Your task to perform on an android device: Go to sound settings Image 0: 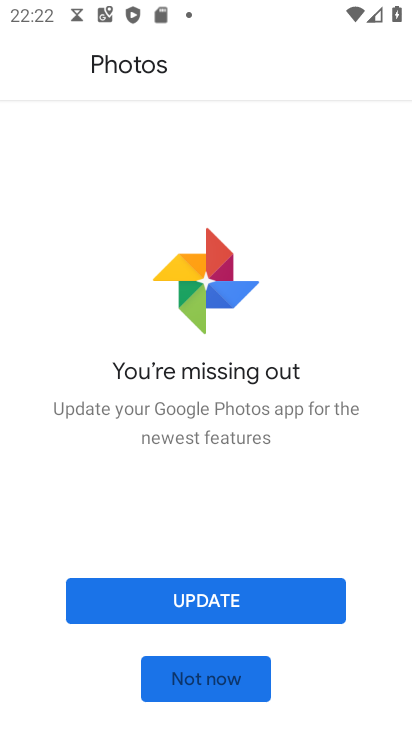
Step 0: press home button
Your task to perform on an android device: Go to sound settings Image 1: 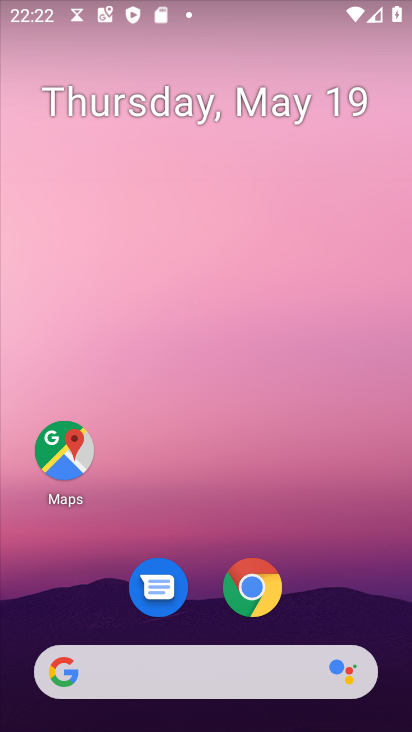
Step 1: drag from (220, 670) to (47, 1)
Your task to perform on an android device: Go to sound settings Image 2: 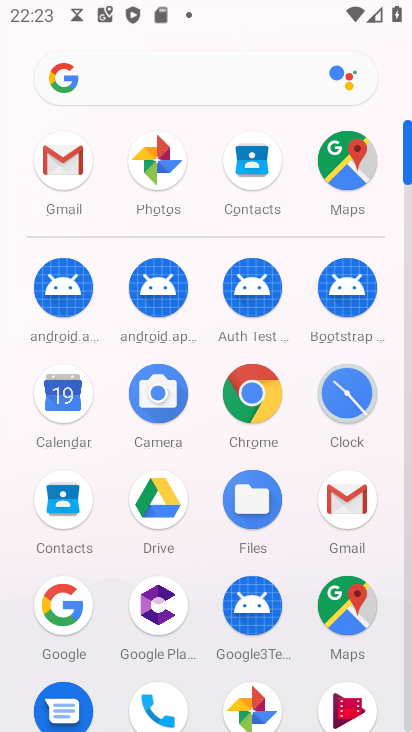
Step 2: drag from (173, 634) to (0, 15)
Your task to perform on an android device: Go to sound settings Image 3: 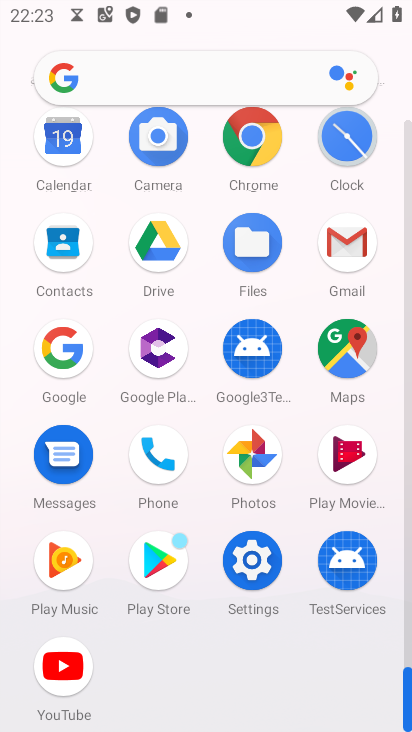
Step 3: click (264, 558)
Your task to perform on an android device: Go to sound settings Image 4: 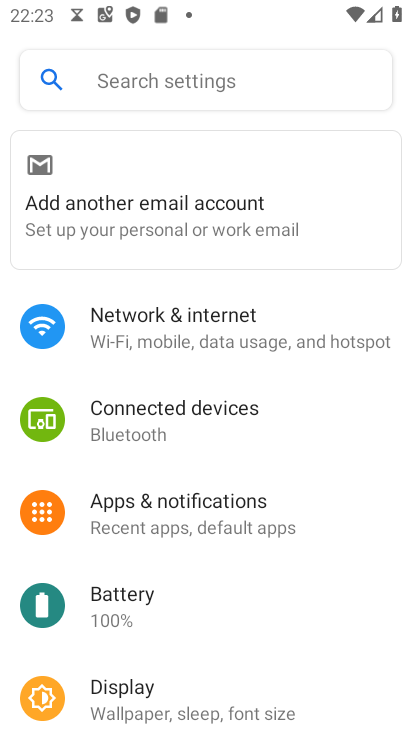
Step 4: drag from (133, 609) to (188, 90)
Your task to perform on an android device: Go to sound settings Image 5: 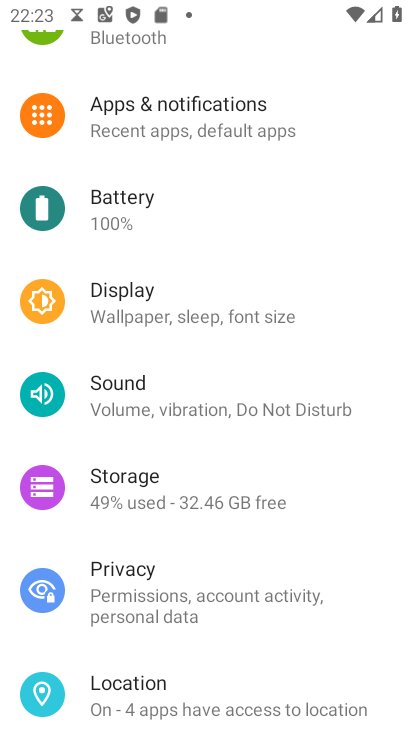
Step 5: click (103, 419)
Your task to perform on an android device: Go to sound settings Image 6: 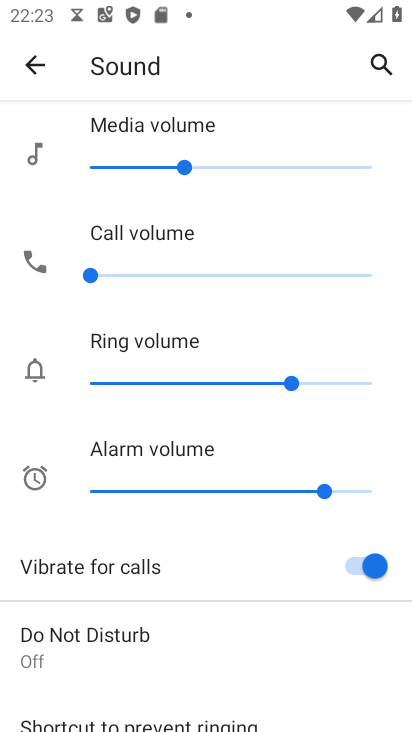
Step 6: task complete